Your task to perform on an android device: Search for vegetarian restaurants on Maps Image 0: 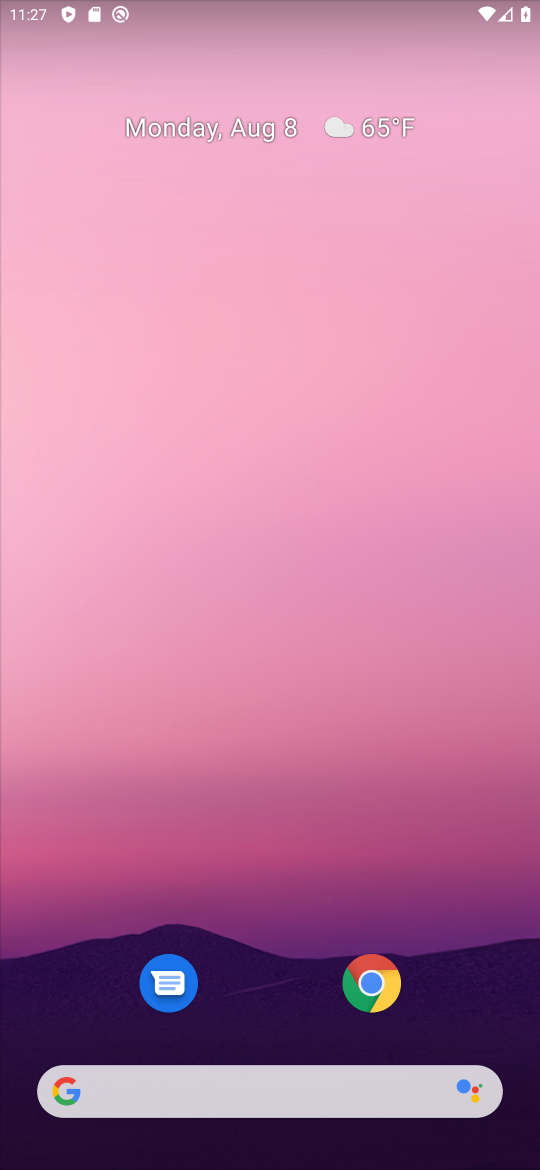
Step 0: drag from (257, 1029) to (202, 169)
Your task to perform on an android device: Search for vegetarian restaurants on Maps Image 1: 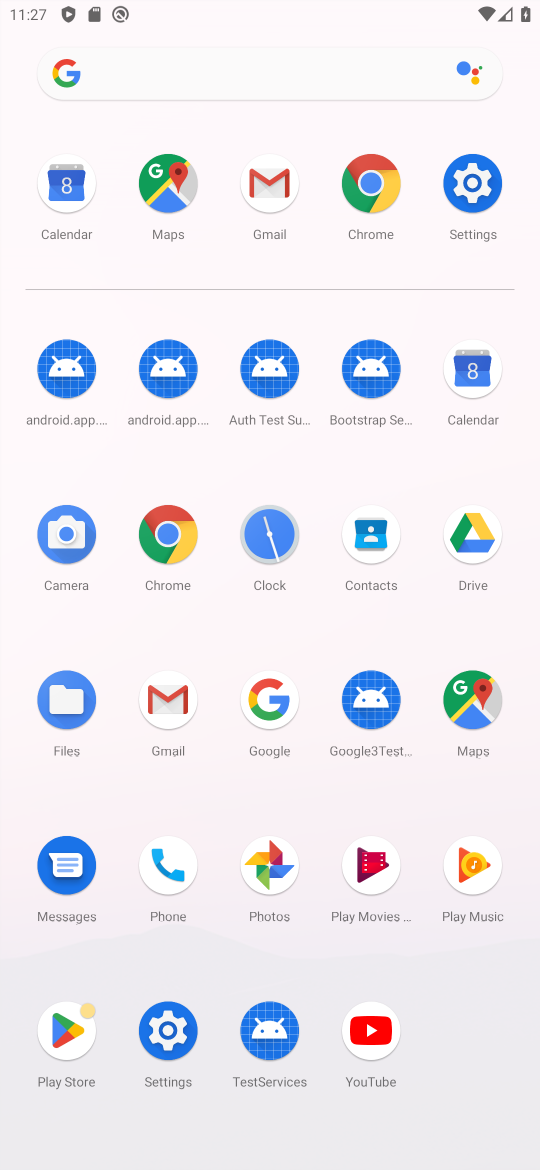
Step 1: click (454, 709)
Your task to perform on an android device: Search for vegetarian restaurants on Maps Image 2: 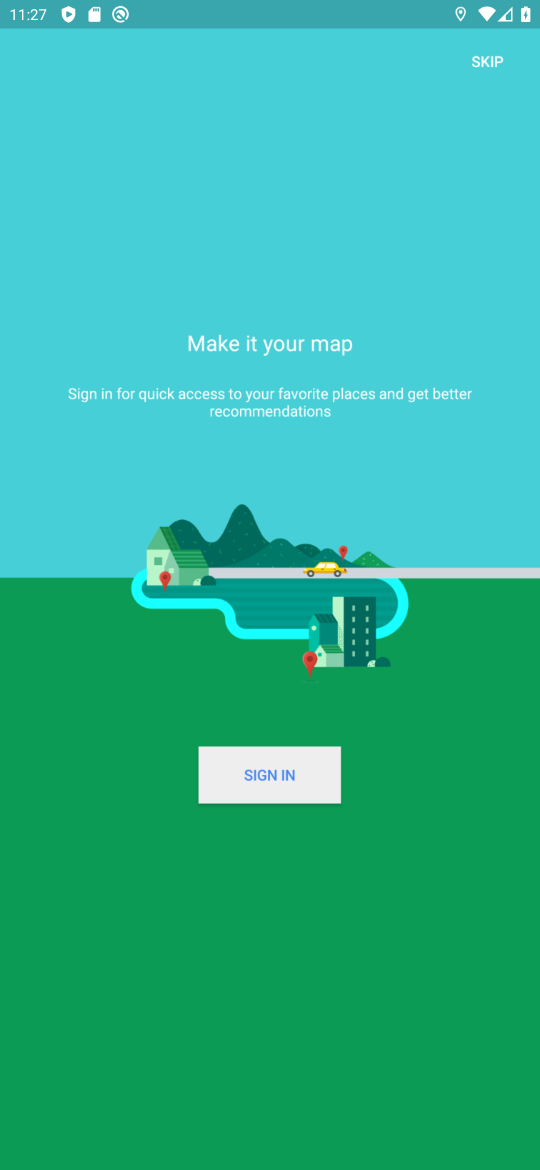
Step 2: task complete